Your task to perform on an android device: Play the last video I watched on Youtube Image 0: 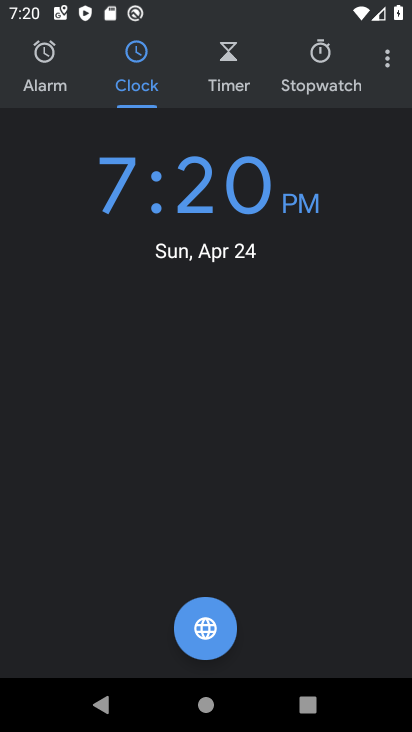
Step 0: press home button
Your task to perform on an android device: Play the last video I watched on Youtube Image 1: 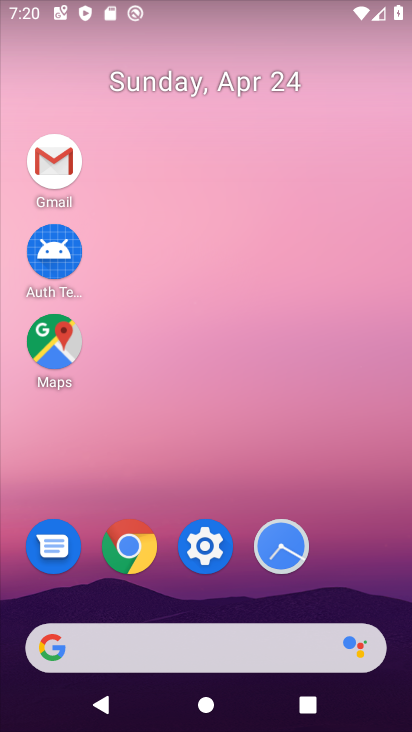
Step 1: drag from (371, 563) to (320, 11)
Your task to perform on an android device: Play the last video I watched on Youtube Image 2: 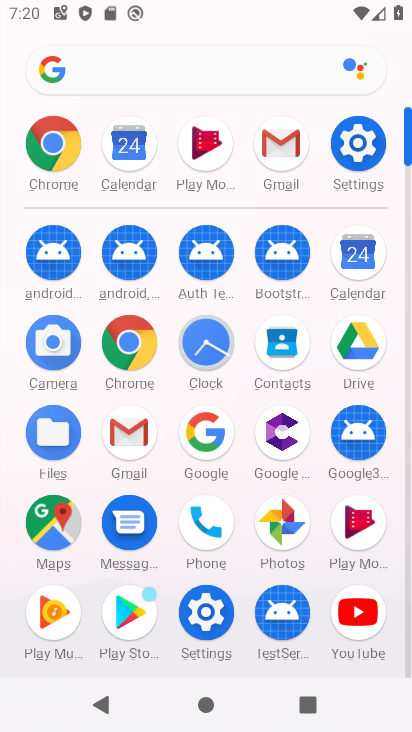
Step 2: click (353, 608)
Your task to perform on an android device: Play the last video I watched on Youtube Image 3: 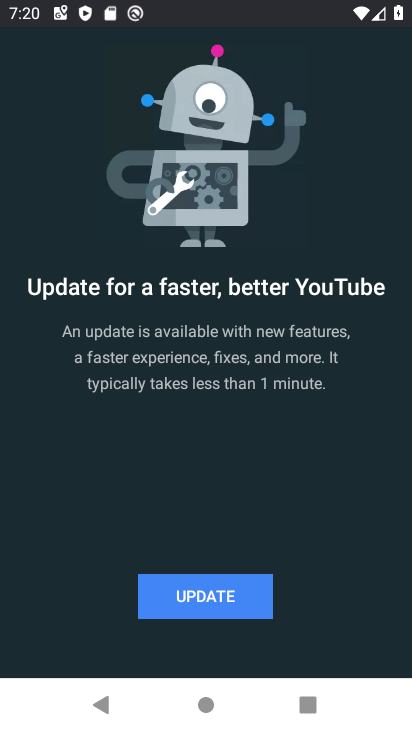
Step 3: click (217, 606)
Your task to perform on an android device: Play the last video I watched on Youtube Image 4: 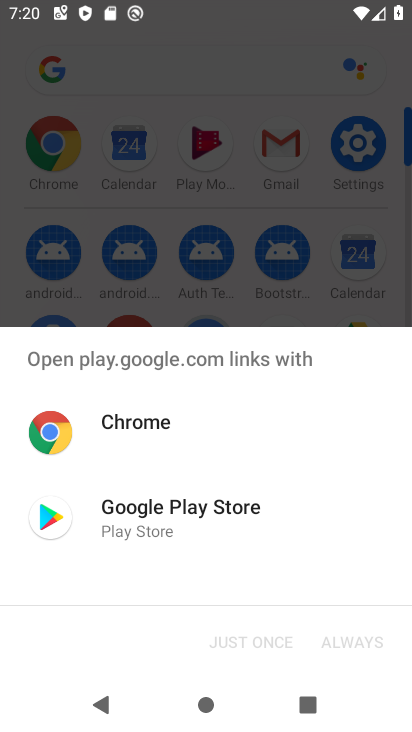
Step 4: click (134, 514)
Your task to perform on an android device: Play the last video I watched on Youtube Image 5: 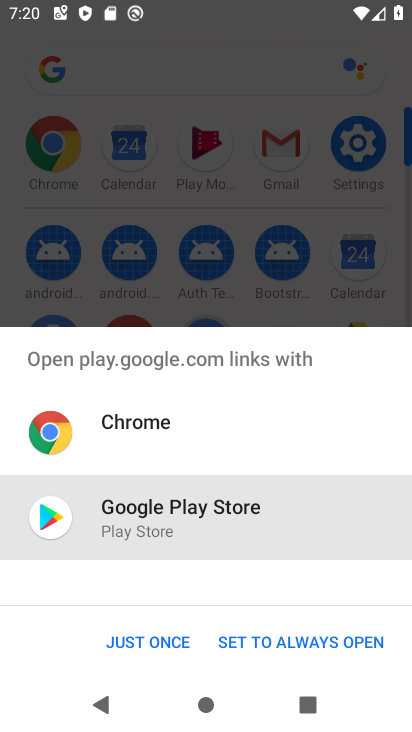
Step 5: click (148, 644)
Your task to perform on an android device: Play the last video I watched on Youtube Image 6: 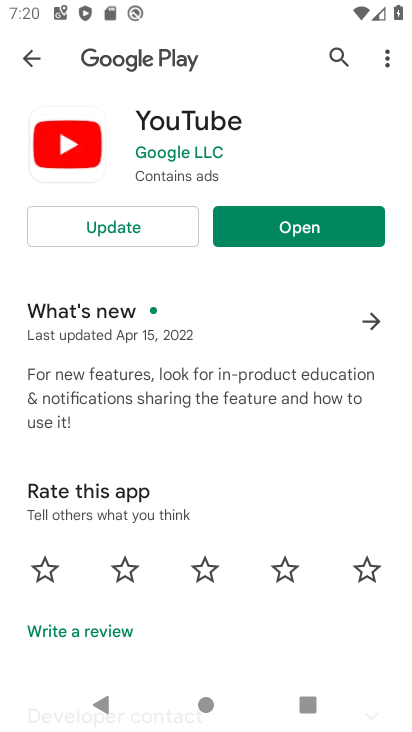
Step 6: click (111, 227)
Your task to perform on an android device: Play the last video I watched on Youtube Image 7: 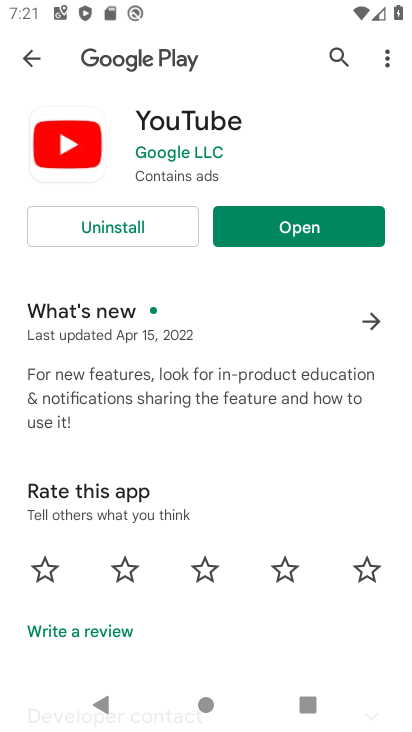
Step 7: click (263, 222)
Your task to perform on an android device: Play the last video I watched on Youtube Image 8: 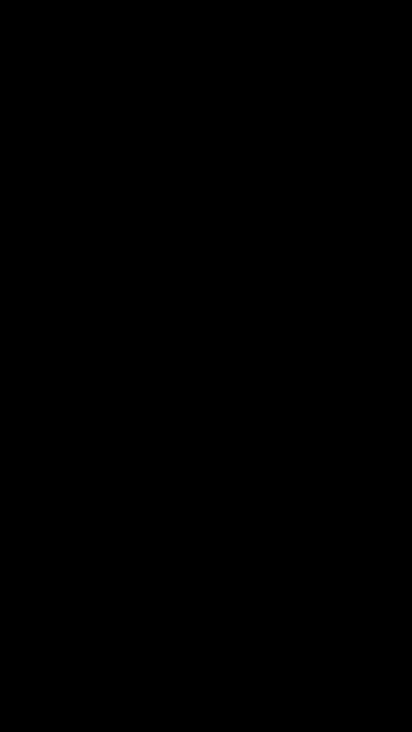
Step 8: click (369, 648)
Your task to perform on an android device: Play the last video I watched on Youtube Image 9: 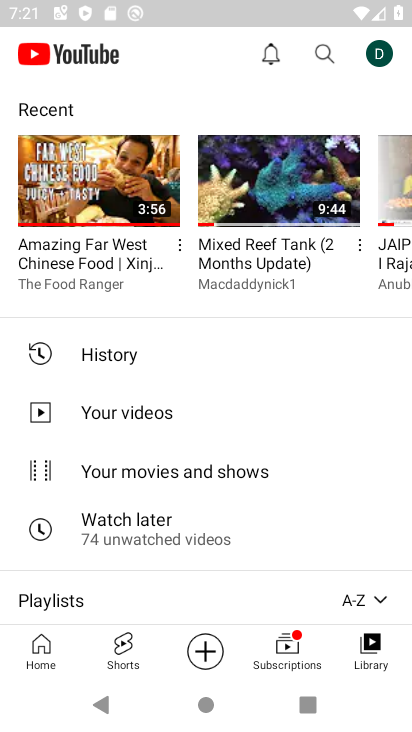
Step 9: click (100, 192)
Your task to perform on an android device: Play the last video I watched on Youtube Image 10: 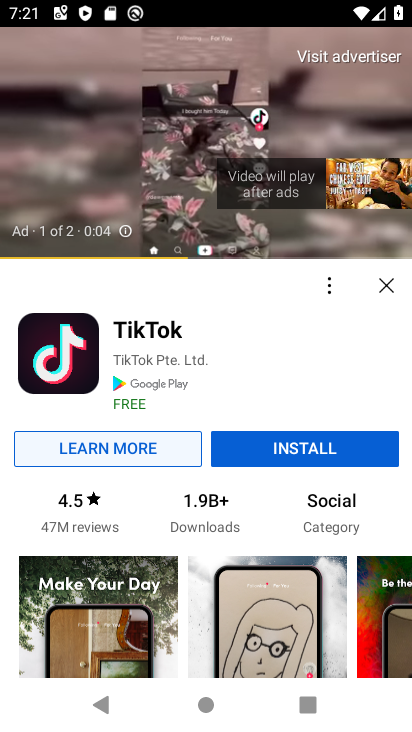
Step 10: task complete